Your task to perform on an android device: Open wifi settings Image 0: 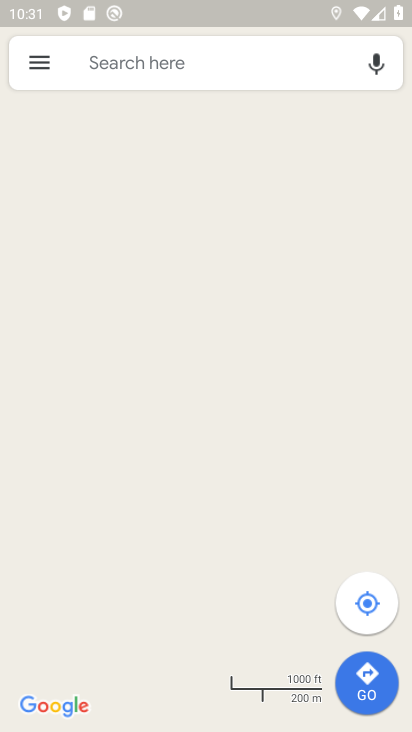
Step 0: press home button
Your task to perform on an android device: Open wifi settings Image 1: 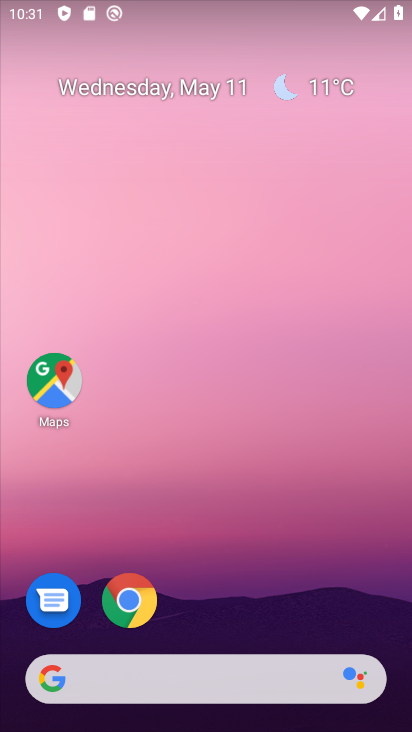
Step 1: drag from (209, 639) to (407, 153)
Your task to perform on an android device: Open wifi settings Image 2: 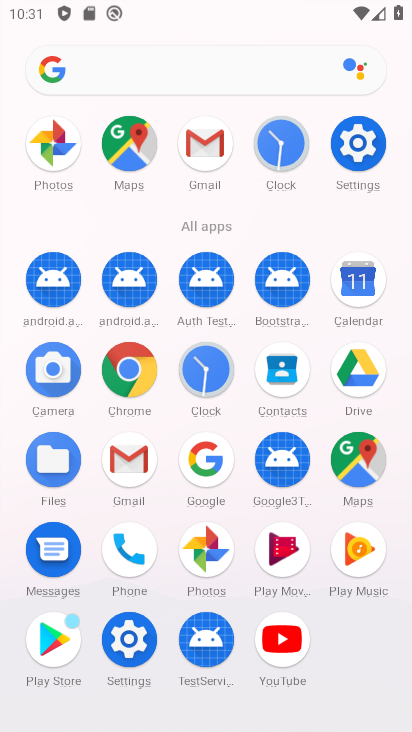
Step 2: click (382, 158)
Your task to perform on an android device: Open wifi settings Image 3: 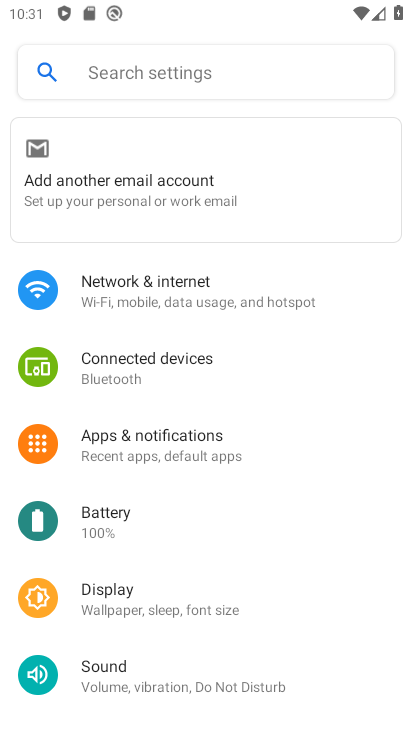
Step 3: click (181, 291)
Your task to perform on an android device: Open wifi settings Image 4: 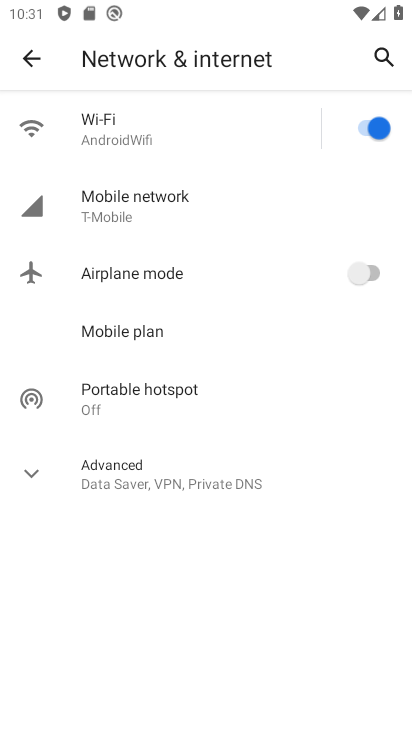
Step 4: click (150, 151)
Your task to perform on an android device: Open wifi settings Image 5: 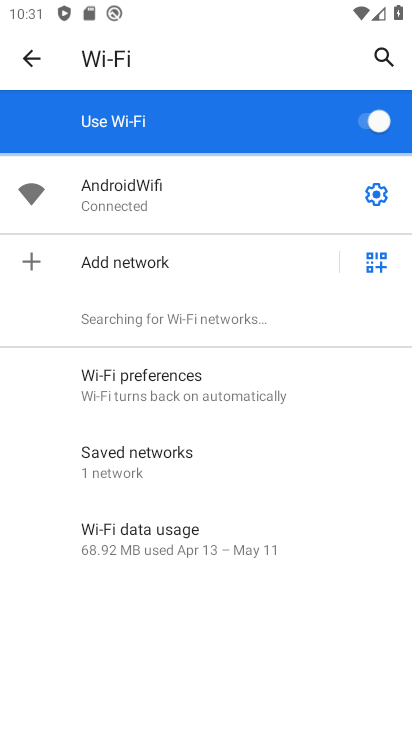
Step 5: task complete